Your task to perform on an android device: Go to privacy settings Image 0: 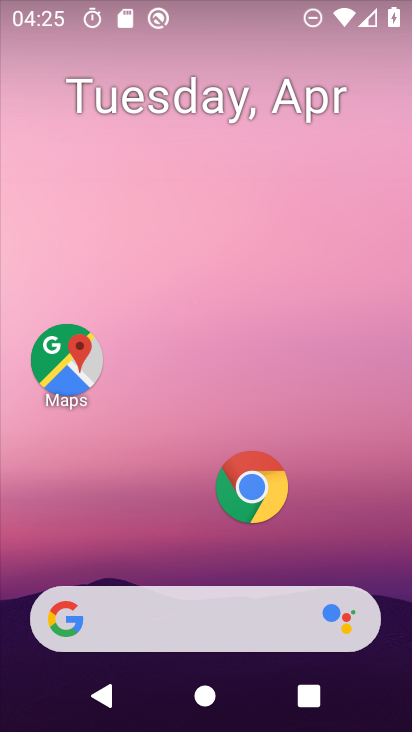
Step 0: drag from (200, 569) to (265, 64)
Your task to perform on an android device: Go to privacy settings Image 1: 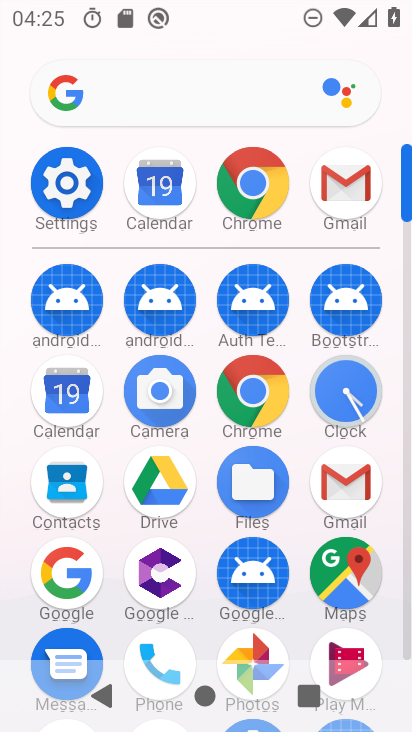
Step 1: click (78, 185)
Your task to perform on an android device: Go to privacy settings Image 2: 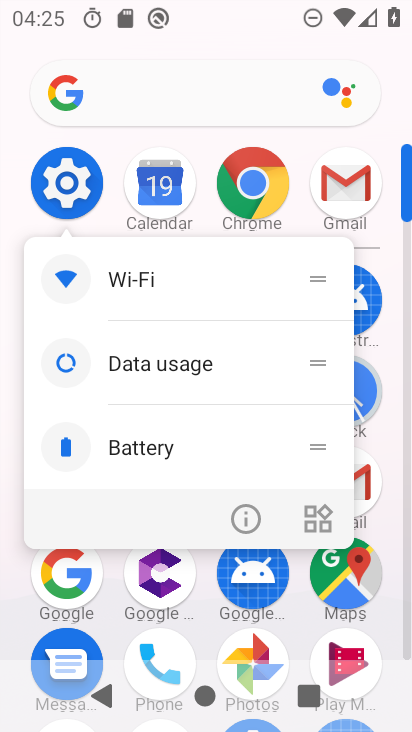
Step 2: click (61, 179)
Your task to perform on an android device: Go to privacy settings Image 3: 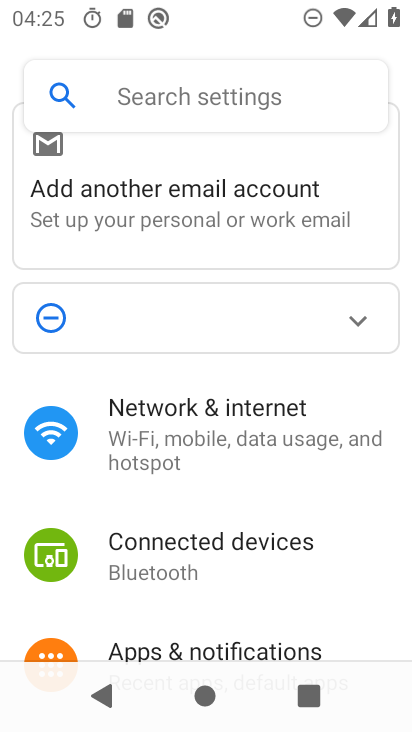
Step 3: drag from (208, 613) to (299, 207)
Your task to perform on an android device: Go to privacy settings Image 4: 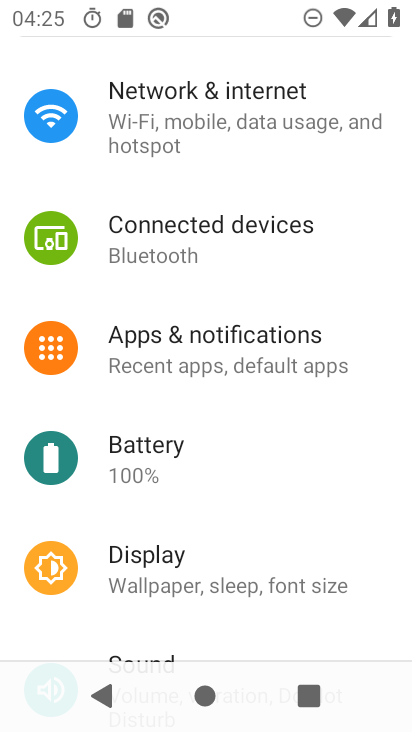
Step 4: drag from (191, 543) to (362, 21)
Your task to perform on an android device: Go to privacy settings Image 5: 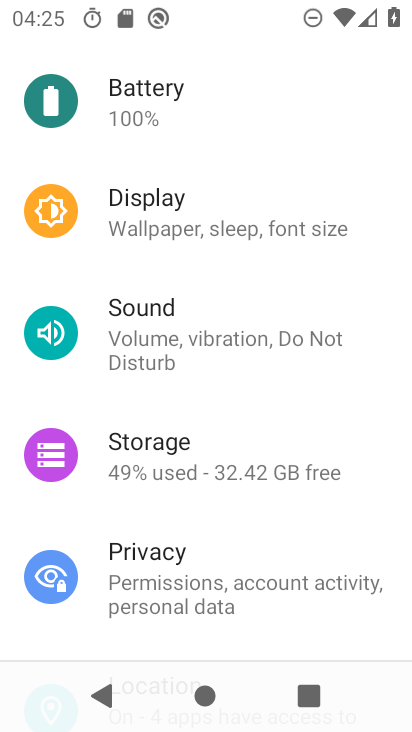
Step 5: click (163, 552)
Your task to perform on an android device: Go to privacy settings Image 6: 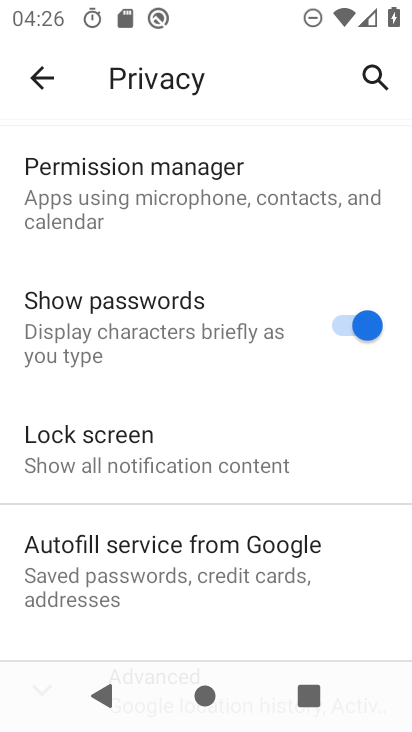
Step 6: task complete